Your task to perform on an android device: set the timer Image 0: 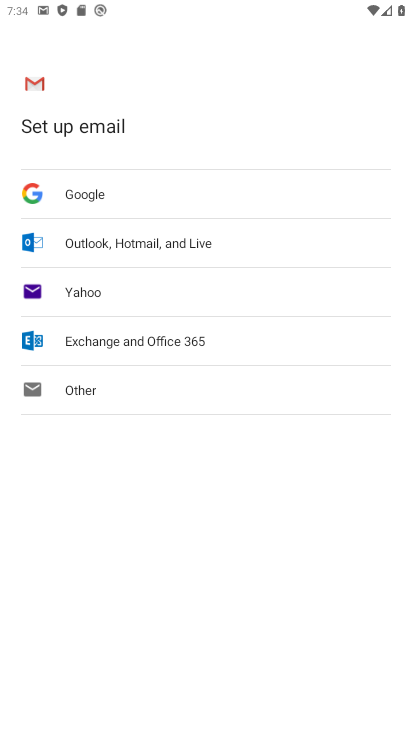
Step 0: press home button
Your task to perform on an android device: set the timer Image 1: 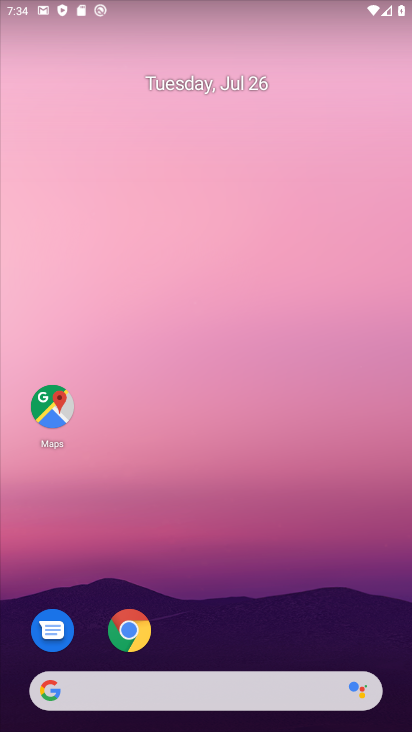
Step 1: drag from (283, 656) to (204, 85)
Your task to perform on an android device: set the timer Image 2: 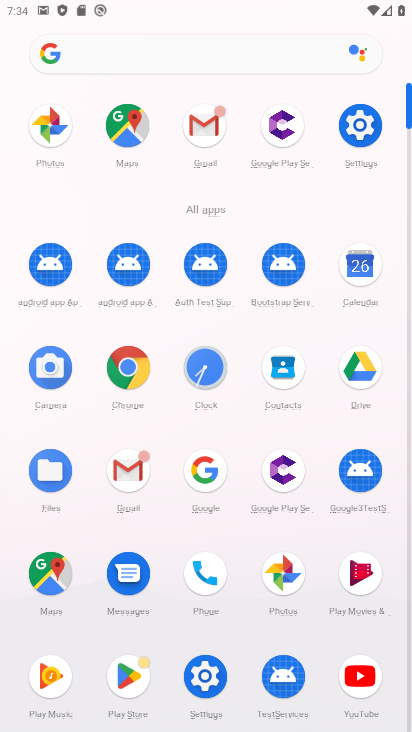
Step 2: click (216, 368)
Your task to perform on an android device: set the timer Image 3: 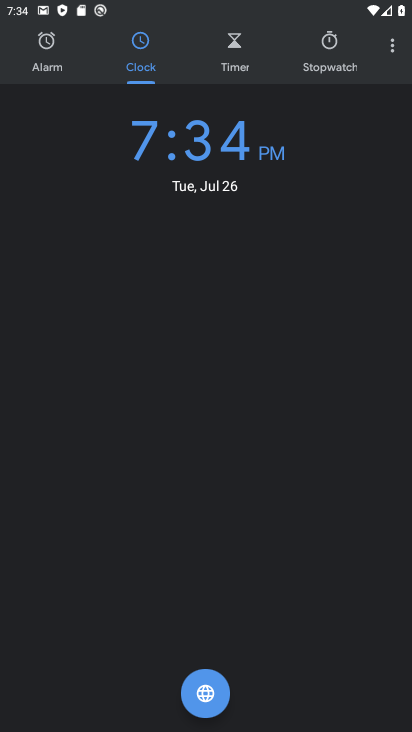
Step 3: click (237, 71)
Your task to perform on an android device: set the timer Image 4: 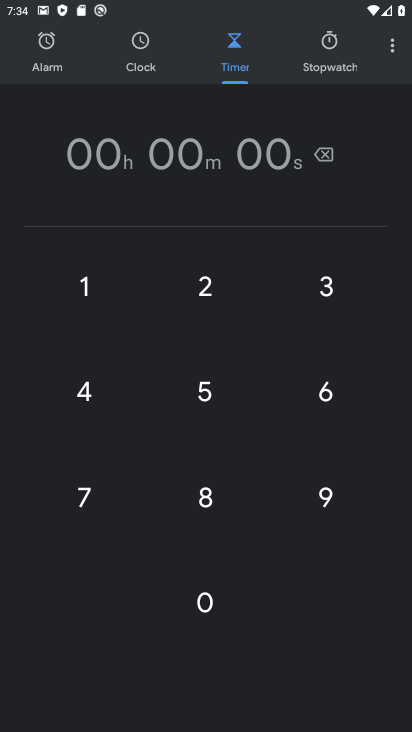
Step 4: task complete